Your task to perform on an android device: Go to Google Image 0: 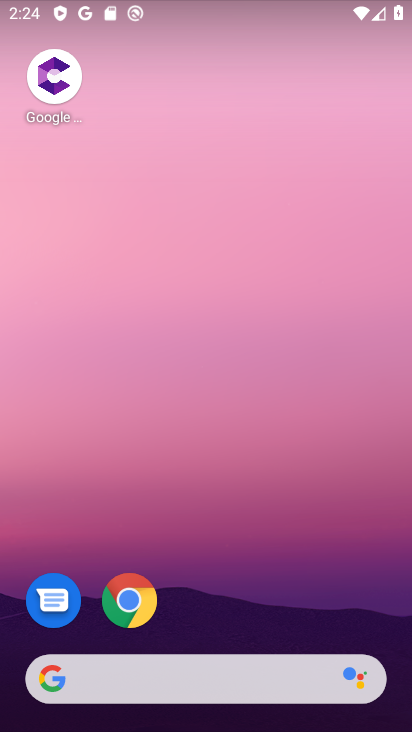
Step 0: drag from (222, 602) to (332, 85)
Your task to perform on an android device: Go to Google Image 1: 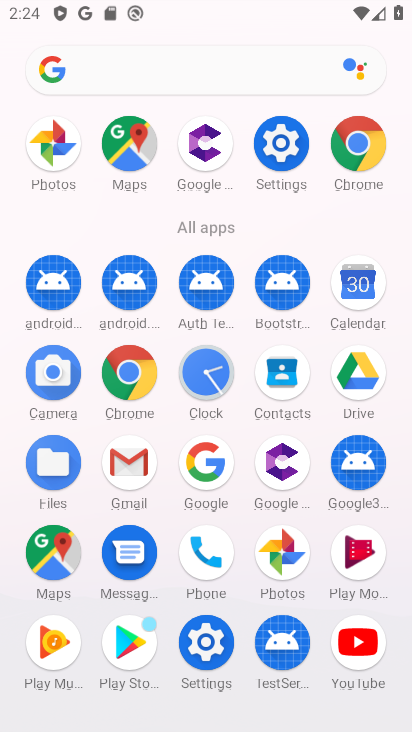
Step 1: click (214, 454)
Your task to perform on an android device: Go to Google Image 2: 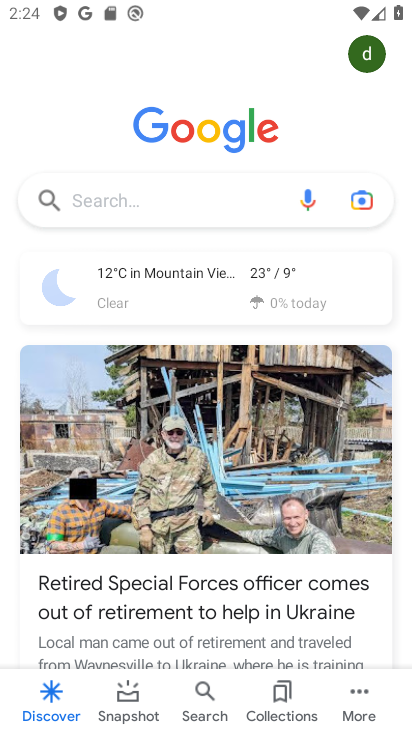
Step 2: task complete